Your task to perform on an android device: refresh tabs in the chrome app Image 0: 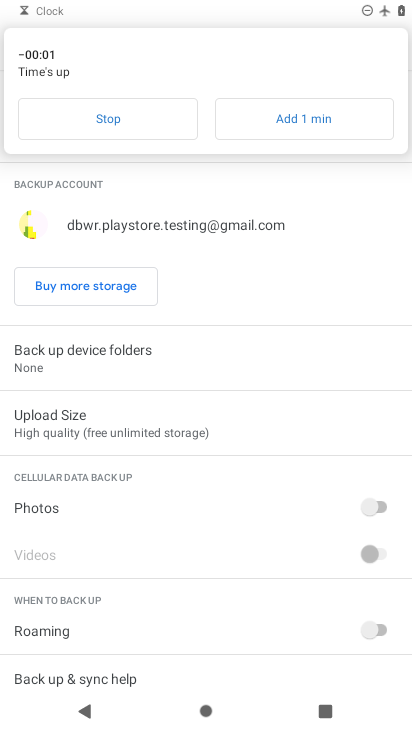
Step 0: click (128, 115)
Your task to perform on an android device: refresh tabs in the chrome app Image 1: 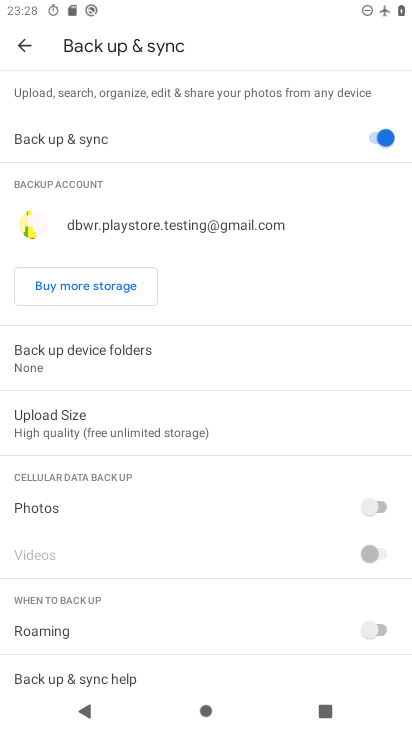
Step 1: press back button
Your task to perform on an android device: refresh tabs in the chrome app Image 2: 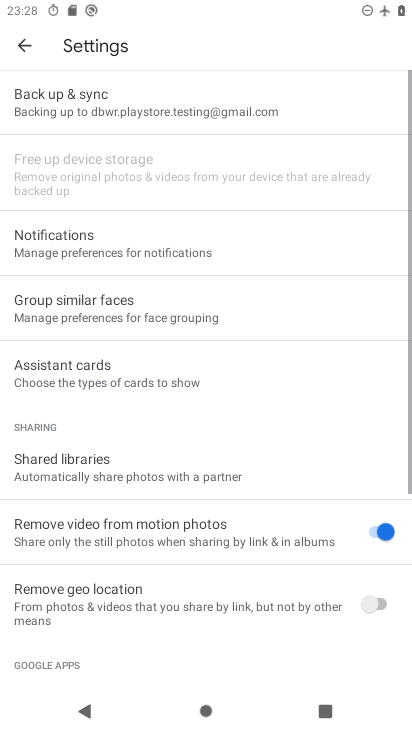
Step 2: press back button
Your task to perform on an android device: refresh tabs in the chrome app Image 3: 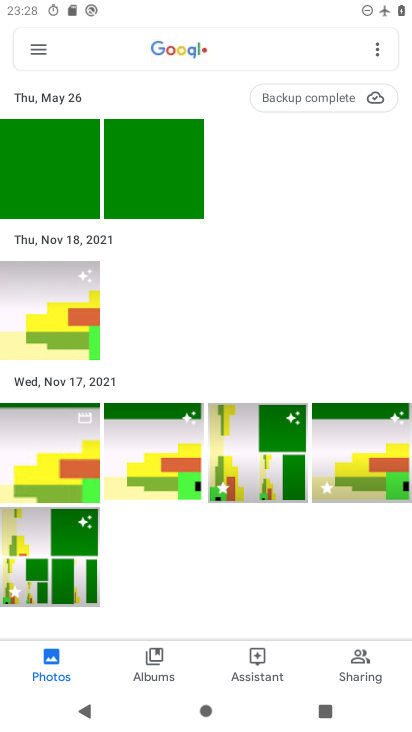
Step 3: press back button
Your task to perform on an android device: refresh tabs in the chrome app Image 4: 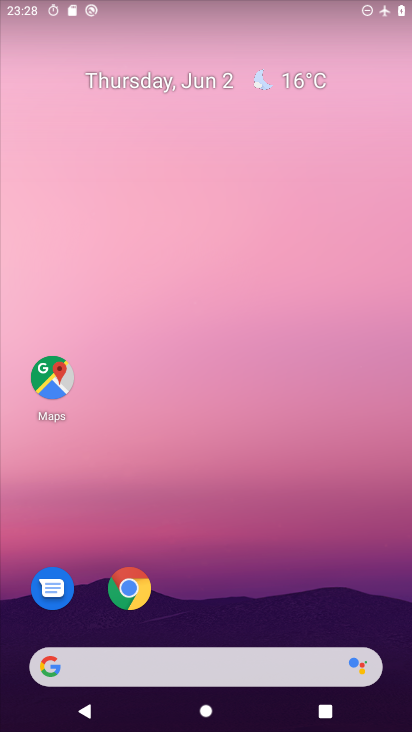
Step 4: click (142, 587)
Your task to perform on an android device: refresh tabs in the chrome app Image 5: 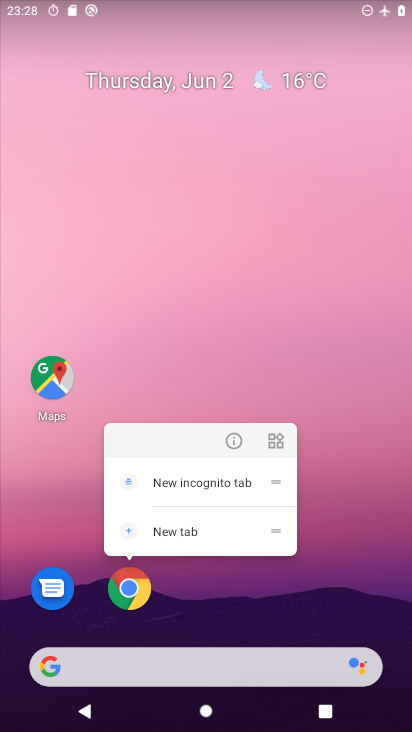
Step 5: click (130, 582)
Your task to perform on an android device: refresh tabs in the chrome app Image 6: 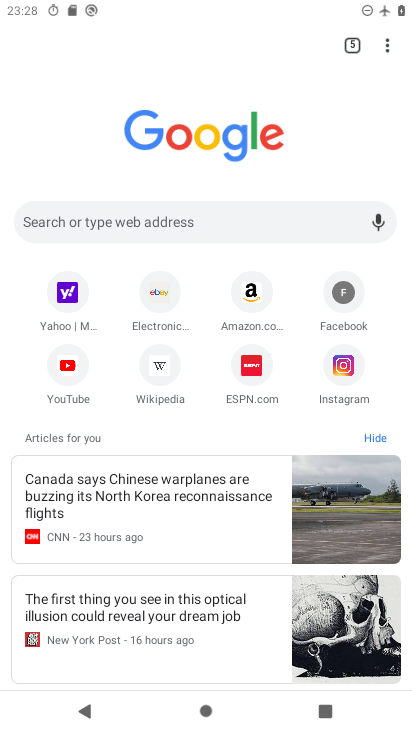
Step 6: click (391, 41)
Your task to perform on an android device: refresh tabs in the chrome app Image 7: 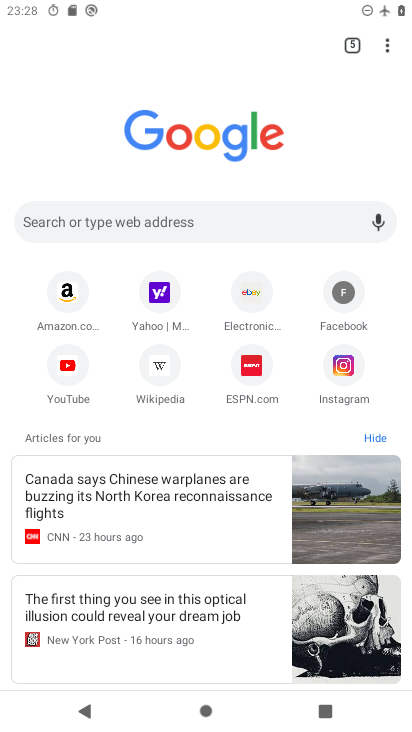
Step 7: task complete